Your task to perform on an android device: Open Yahoo.com Image 0: 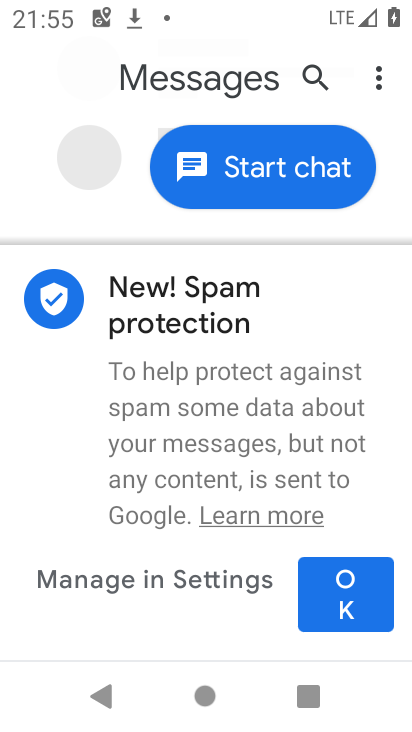
Step 0: press back button
Your task to perform on an android device: Open Yahoo.com Image 1: 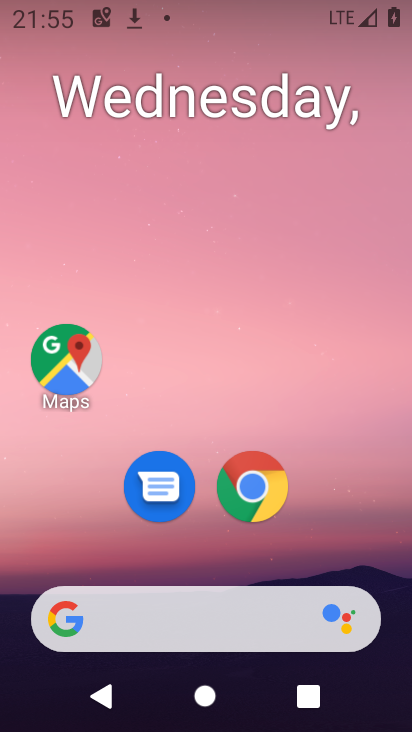
Step 1: click (266, 486)
Your task to perform on an android device: Open Yahoo.com Image 2: 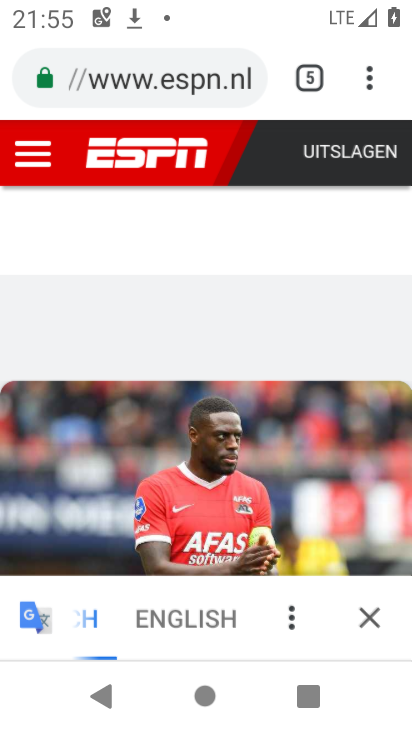
Step 2: click (312, 78)
Your task to perform on an android device: Open Yahoo.com Image 3: 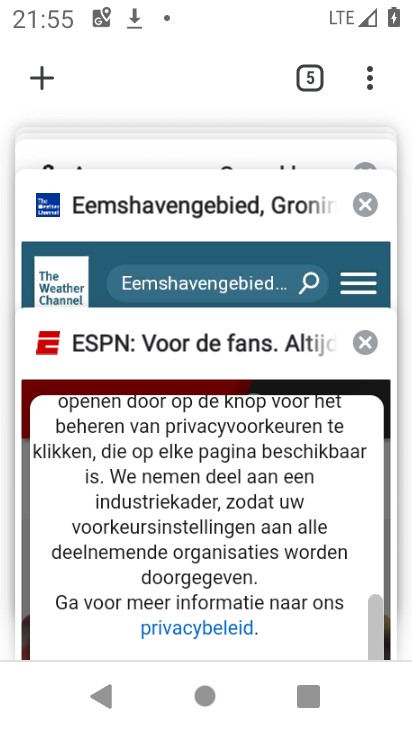
Step 3: drag from (149, 208) to (141, 731)
Your task to perform on an android device: Open Yahoo.com Image 4: 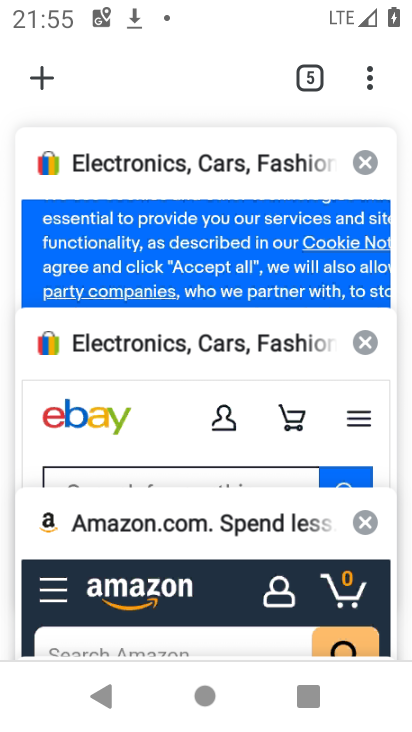
Step 4: click (38, 87)
Your task to perform on an android device: Open Yahoo.com Image 5: 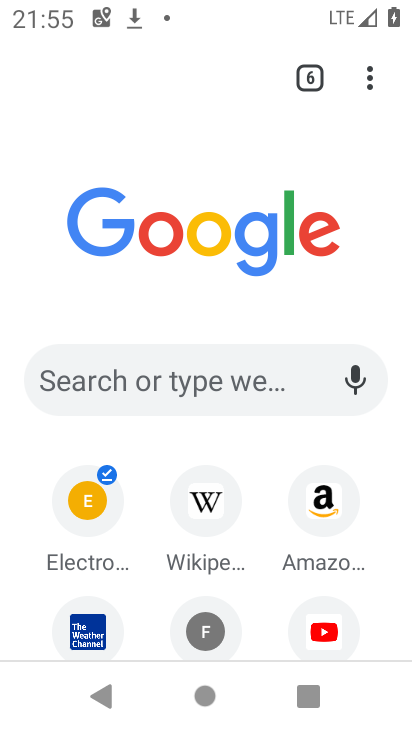
Step 5: click (154, 376)
Your task to perform on an android device: Open Yahoo.com Image 6: 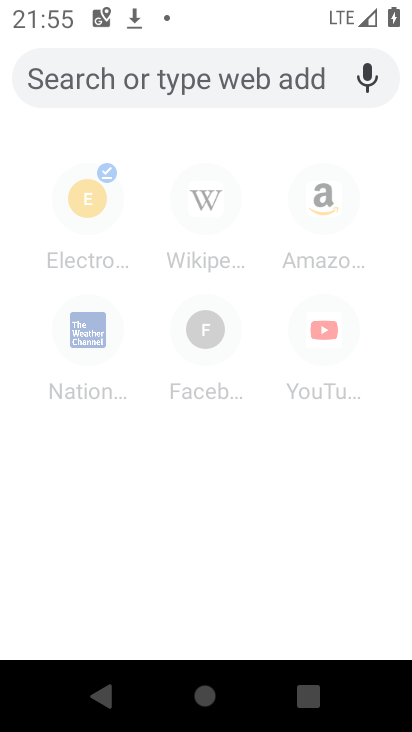
Step 6: type "yahoo.com"
Your task to perform on an android device: Open Yahoo.com Image 7: 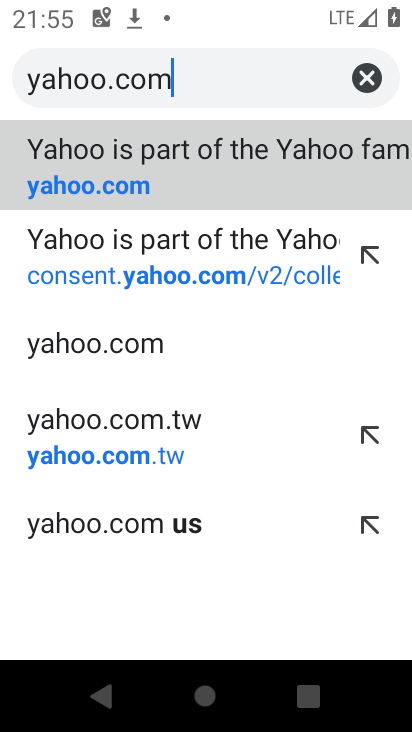
Step 7: click (271, 167)
Your task to perform on an android device: Open Yahoo.com Image 8: 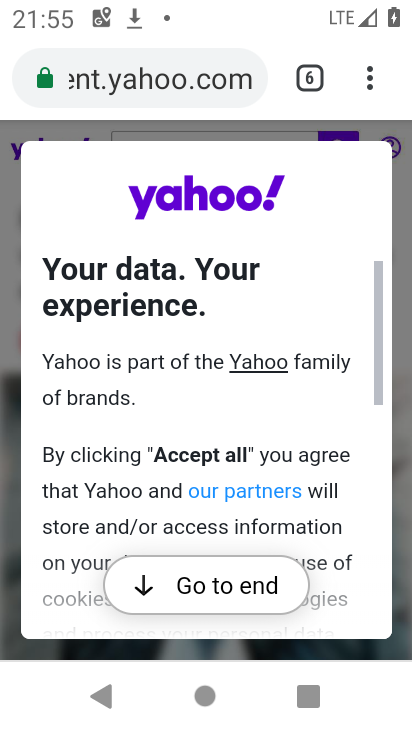
Step 8: task complete